Your task to perform on an android device: move a message to another label in the gmail app Image 0: 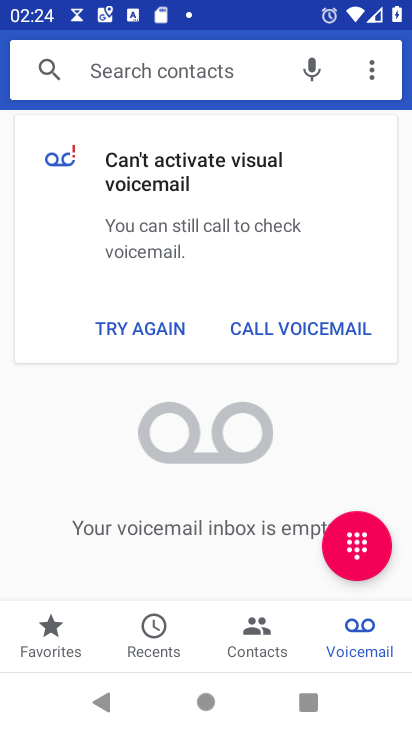
Step 0: press home button
Your task to perform on an android device: move a message to another label in the gmail app Image 1: 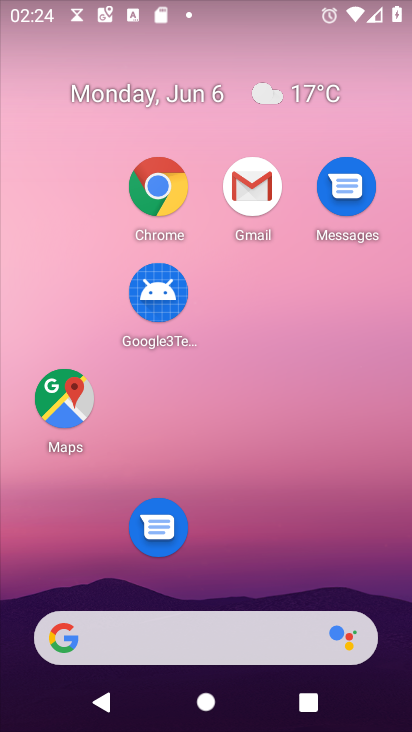
Step 1: drag from (302, 518) to (340, 140)
Your task to perform on an android device: move a message to another label in the gmail app Image 2: 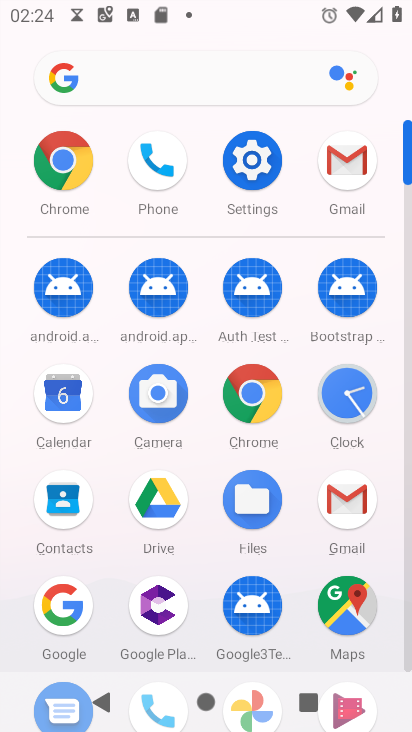
Step 2: click (247, 158)
Your task to perform on an android device: move a message to another label in the gmail app Image 3: 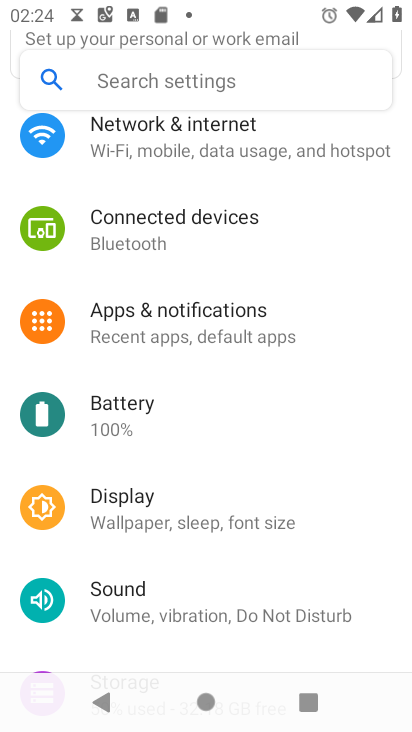
Step 3: press home button
Your task to perform on an android device: move a message to another label in the gmail app Image 4: 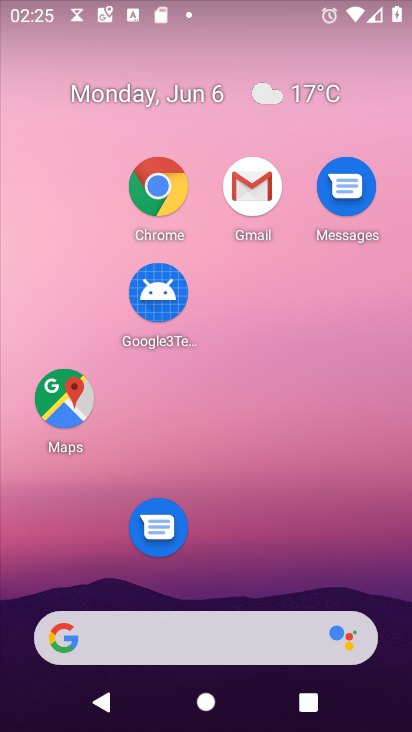
Step 4: click (249, 184)
Your task to perform on an android device: move a message to another label in the gmail app Image 5: 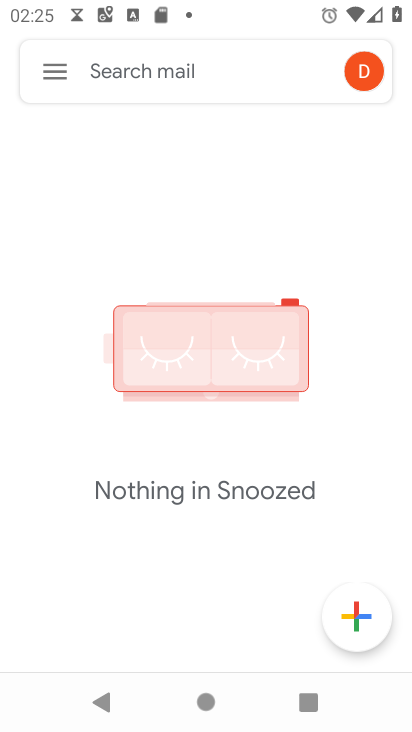
Step 5: click (58, 80)
Your task to perform on an android device: move a message to another label in the gmail app Image 6: 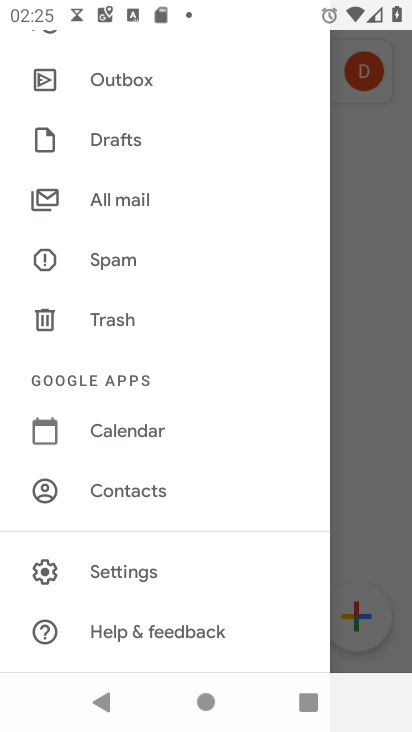
Step 6: click (113, 186)
Your task to perform on an android device: move a message to another label in the gmail app Image 7: 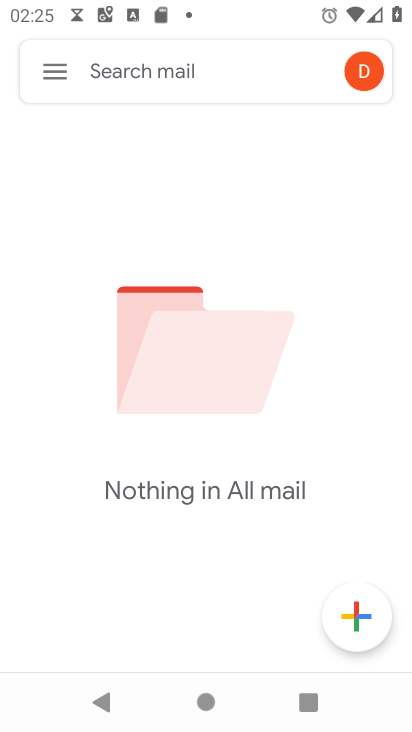
Step 7: task complete